Your task to perform on an android device: set the stopwatch Image 0: 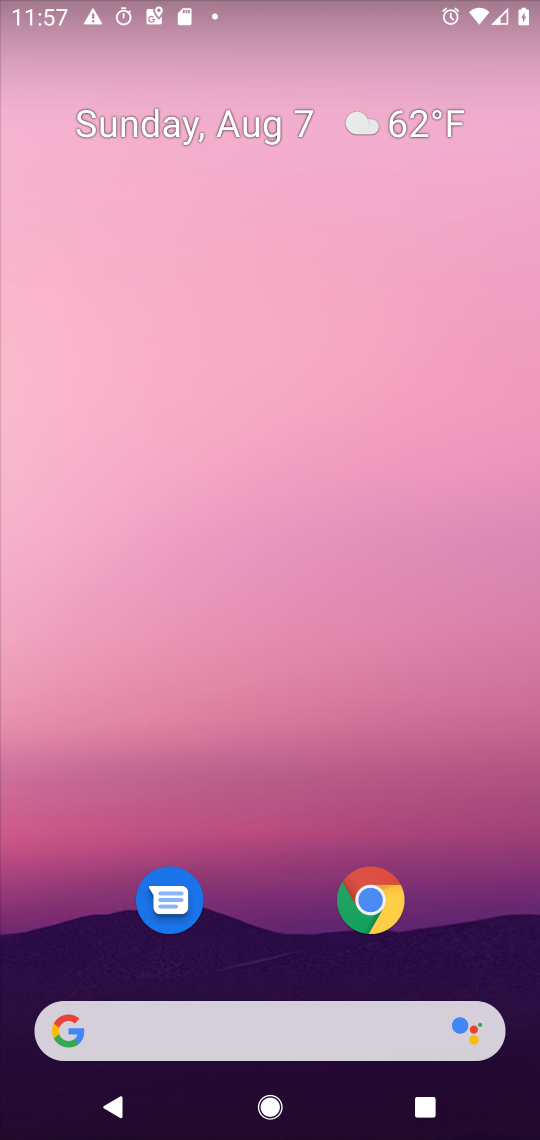
Step 0: drag from (279, 939) to (289, 213)
Your task to perform on an android device: set the stopwatch Image 1: 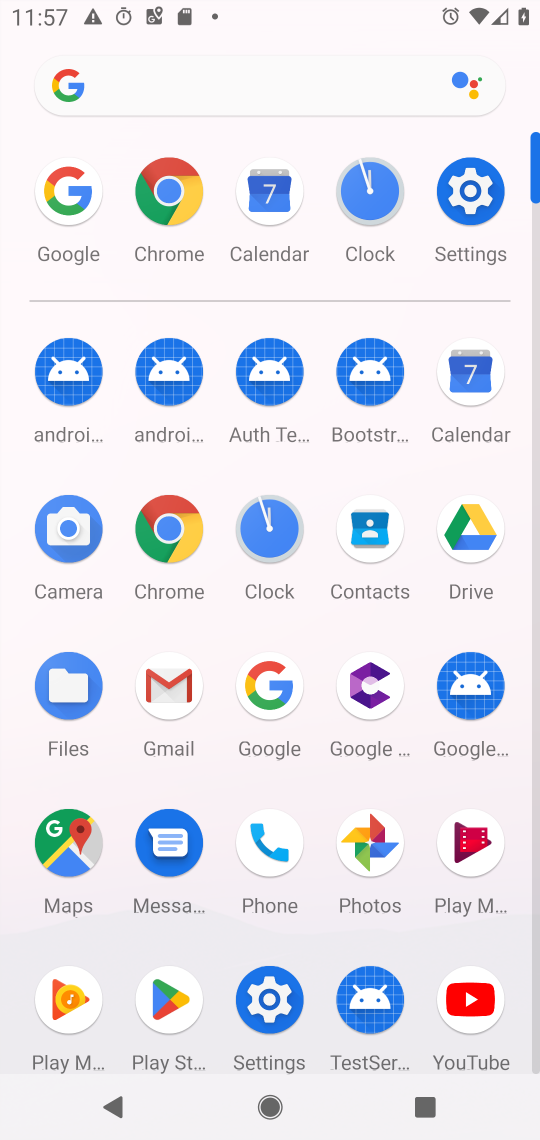
Step 1: click (366, 185)
Your task to perform on an android device: set the stopwatch Image 2: 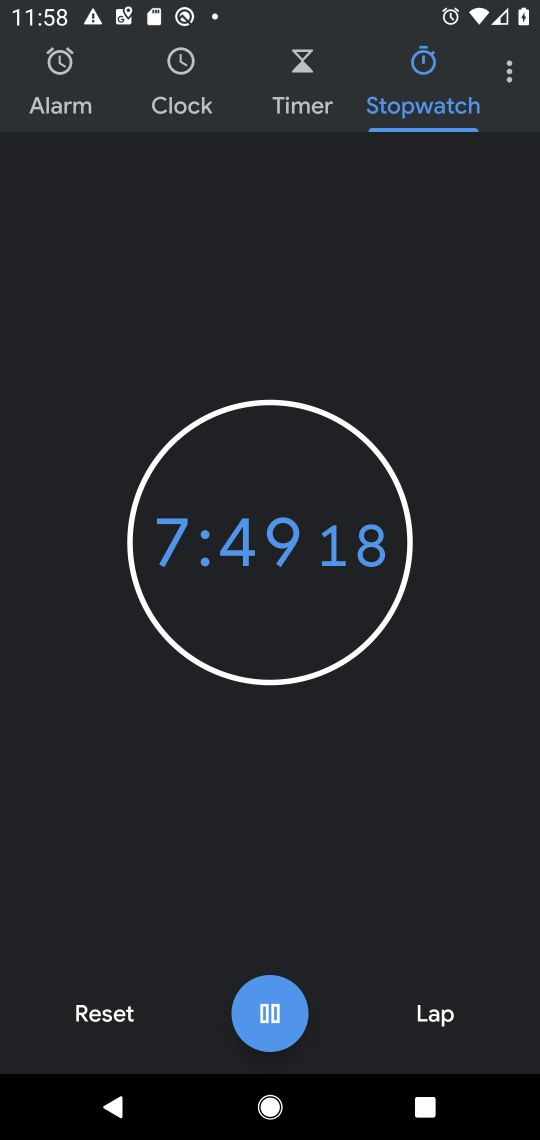
Step 2: task complete